Your task to perform on an android device: delete location history Image 0: 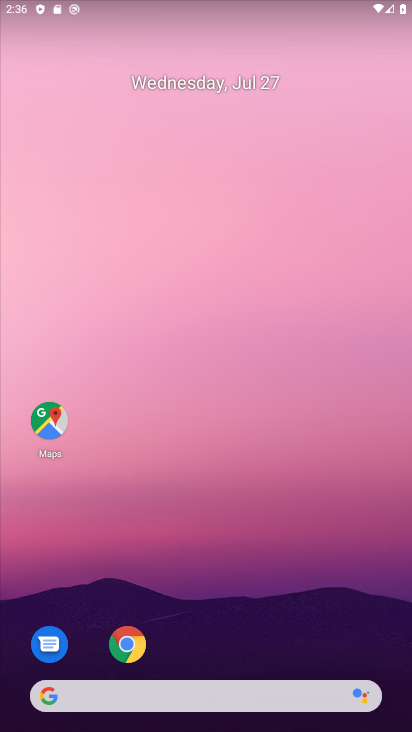
Step 0: drag from (232, 657) to (248, 122)
Your task to perform on an android device: delete location history Image 1: 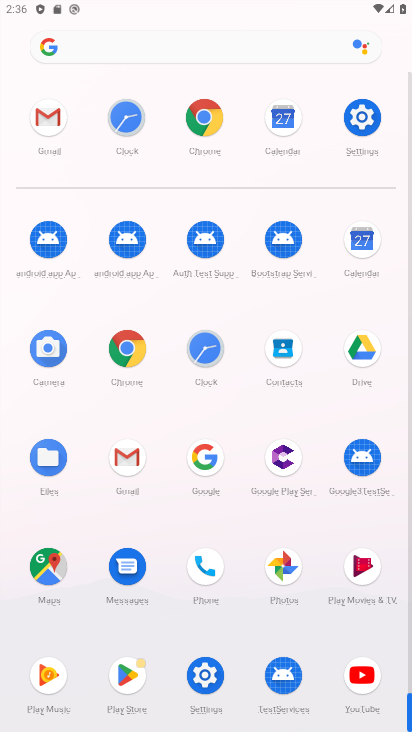
Step 1: click (31, 567)
Your task to perform on an android device: delete location history Image 2: 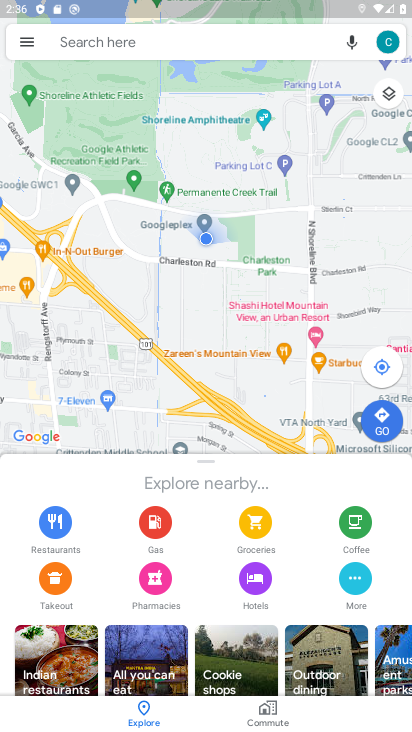
Step 2: click (30, 36)
Your task to perform on an android device: delete location history Image 3: 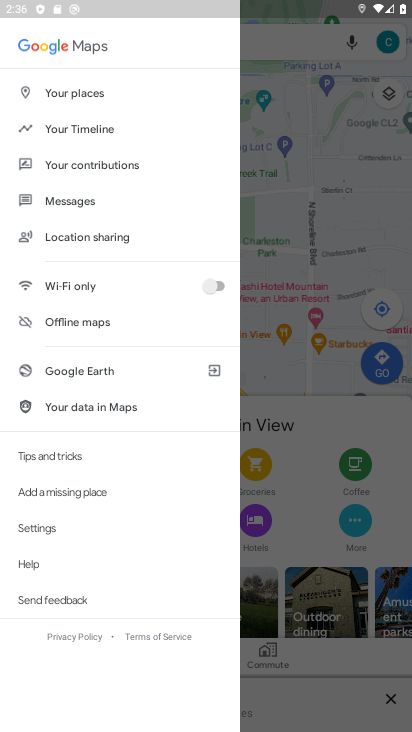
Step 3: click (91, 131)
Your task to perform on an android device: delete location history Image 4: 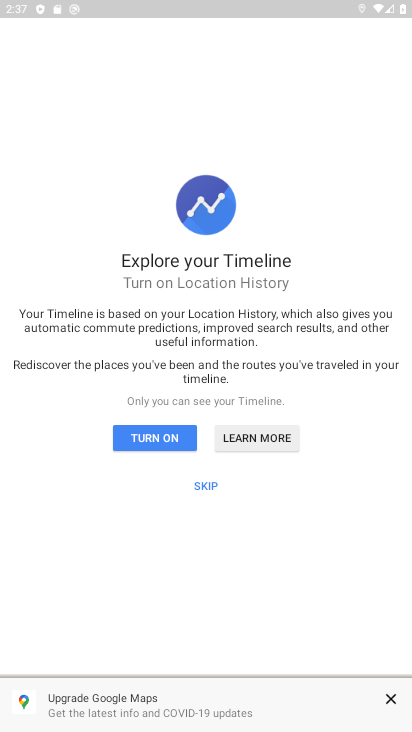
Step 4: click (211, 488)
Your task to perform on an android device: delete location history Image 5: 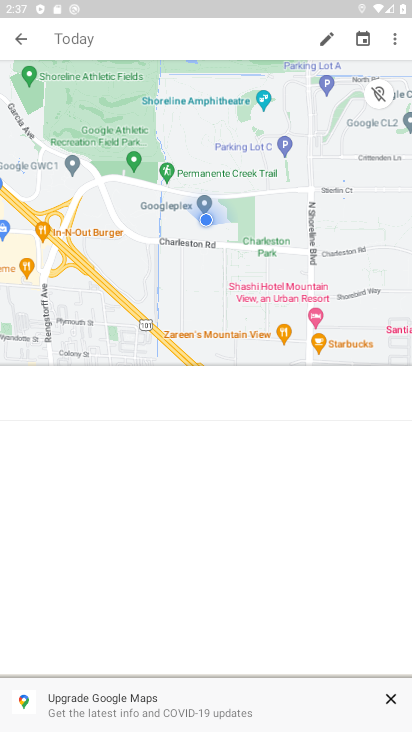
Step 5: click (392, 40)
Your task to perform on an android device: delete location history Image 6: 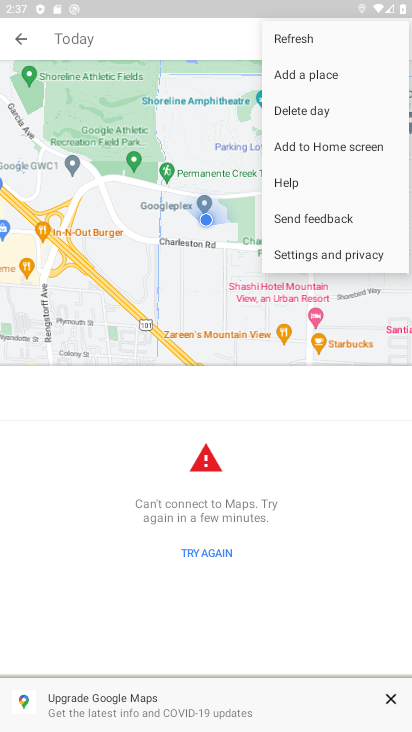
Step 6: click (322, 263)
Your task to perform on an android device: delete location history Image 7: 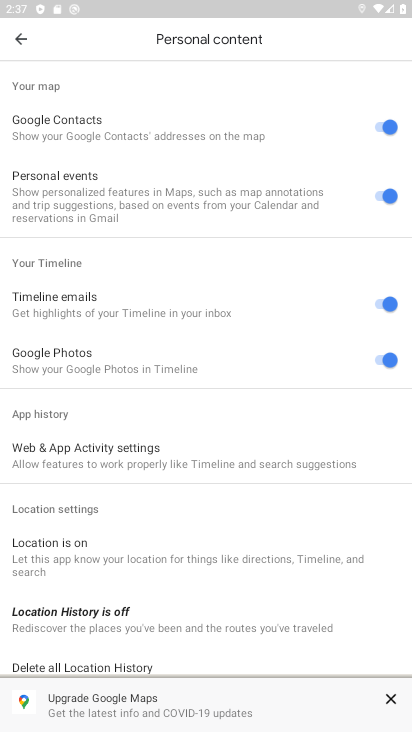
Step 7: drag from (162, 593) to (188, 434)
Your task to perform on an android device: delete location history Image 8: 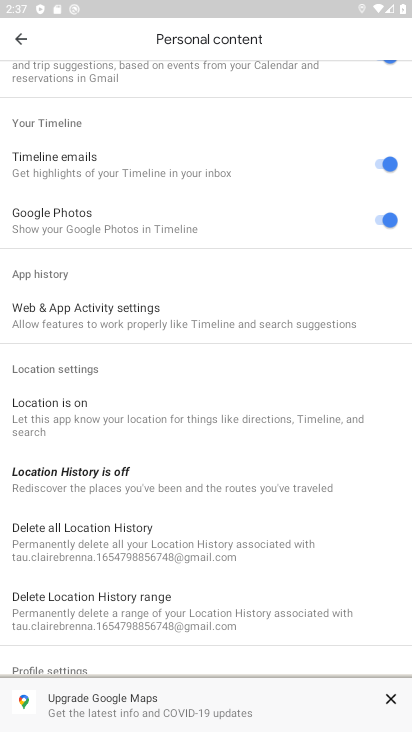
Step 8: click (92, 534)
Your task to perform on an android device: delete location history Image 9: 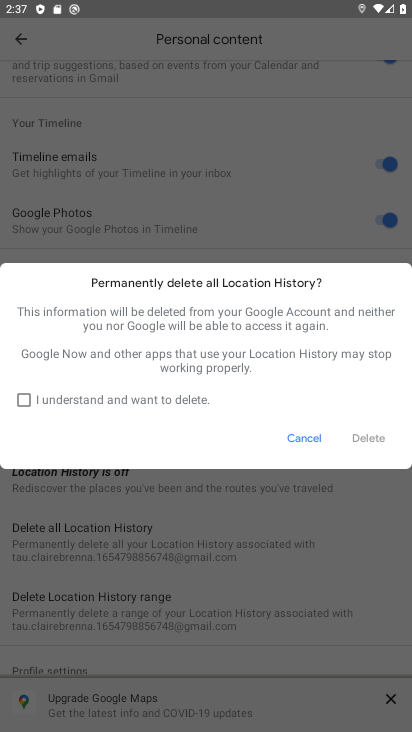
Step 9: click (56, 397)
Your task to perform on an android device: delete location history Image 10: 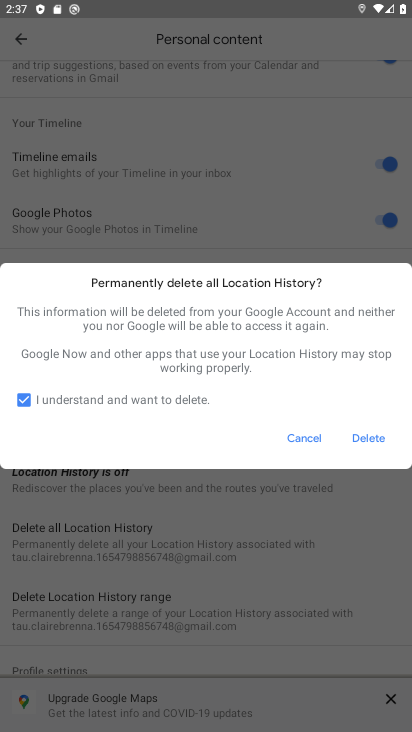
Step 10: click (371, 438)
Your task to perform on an android device: delete location history Image 11: 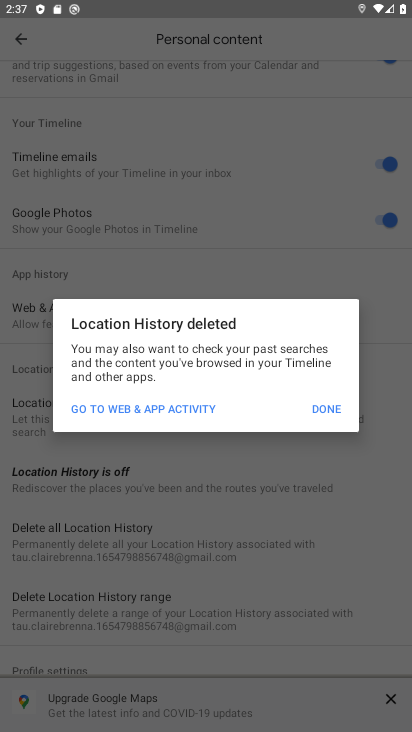
Step 11: click (321, 403)
Your task to perform on an android device: delete location history Image 12: 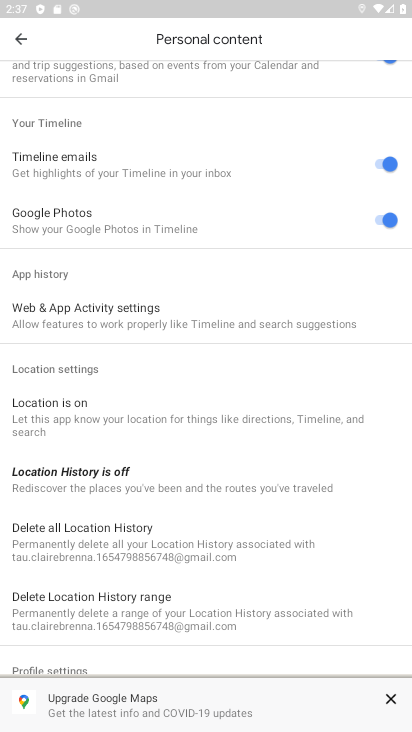
Step 12: task complete